Your task to perform on an android device: open a bookmark in the chrome app Image 0: 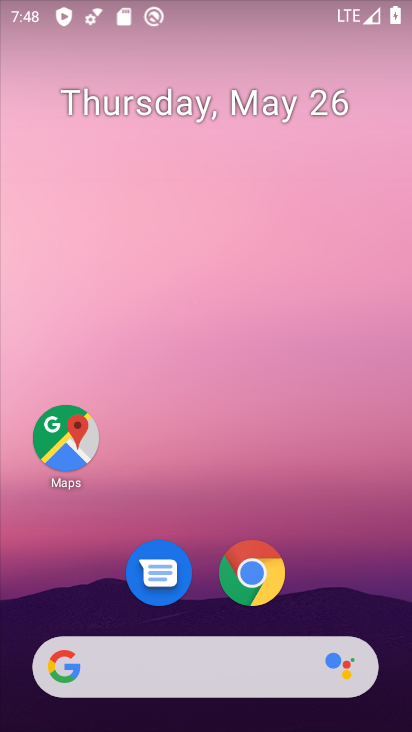
Step 0: click (250, 569)
Your task to perform on an android device: open a bookmark in the chrome app Image 1: 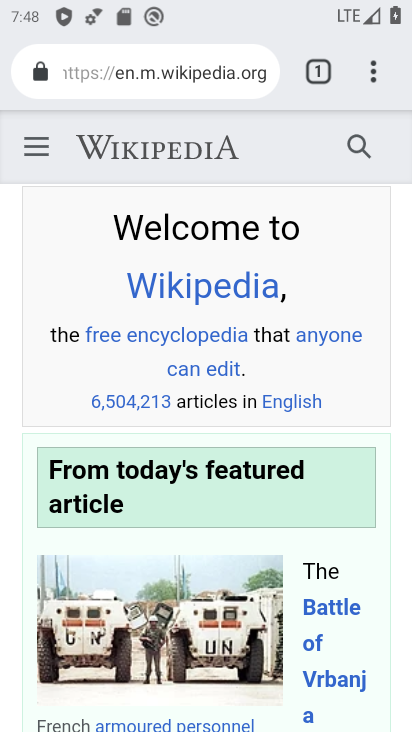
Step 1: drag from (373, 76) to (204, 267)
Your task to perform on an android device: open a bookmark in the chrome app Image 2: 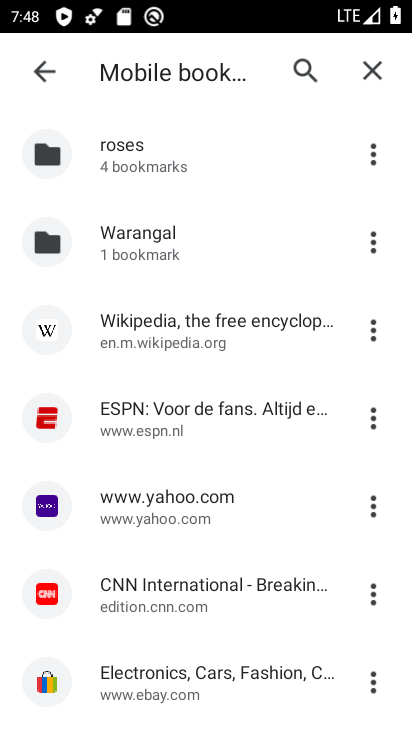
Step 2: click (163, 313)
Your task to perform on an android device: open a bookmark in the chrome app Image 3: 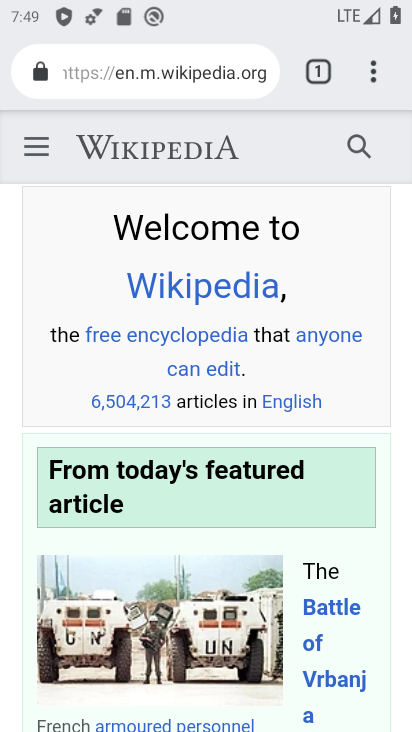
Step 3: task complete